Your task to perform on an android device: Check the weather Image 0: 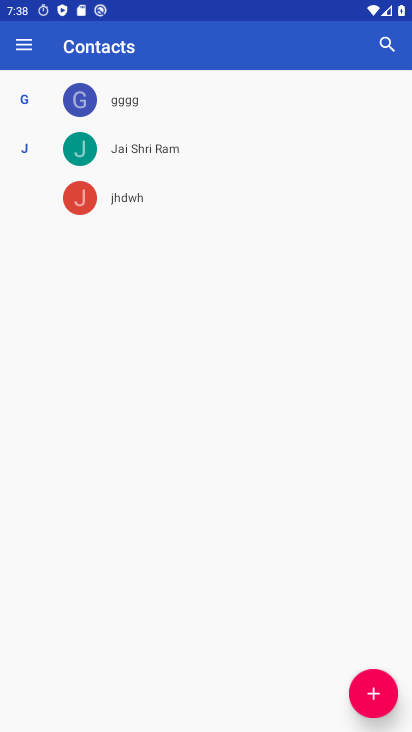
Step 0: press home button
Your task to perform on an android device: Check the weather Image 1: 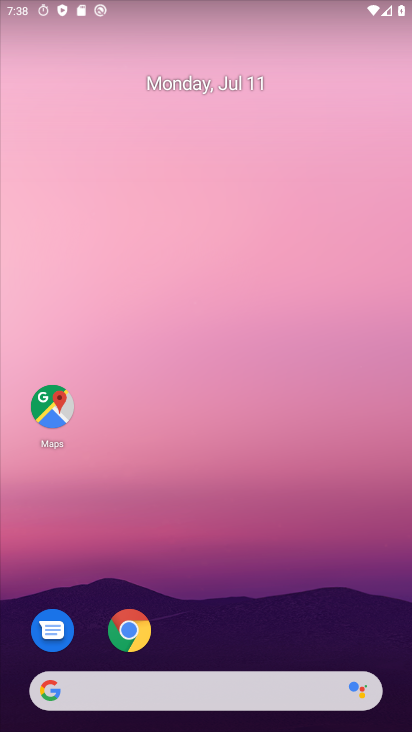
Step 1: click (186, 694)
Your task to perform on an android device: Check the weather Image 2: 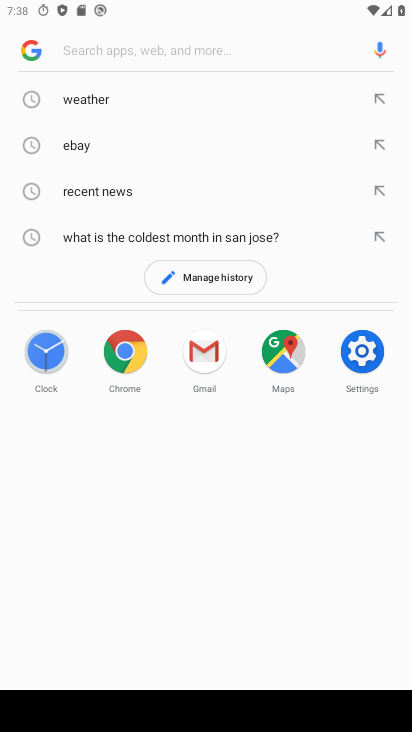
Step 2: click (84, 99)
Your task to perform on an android device: Check the weather Image 3: 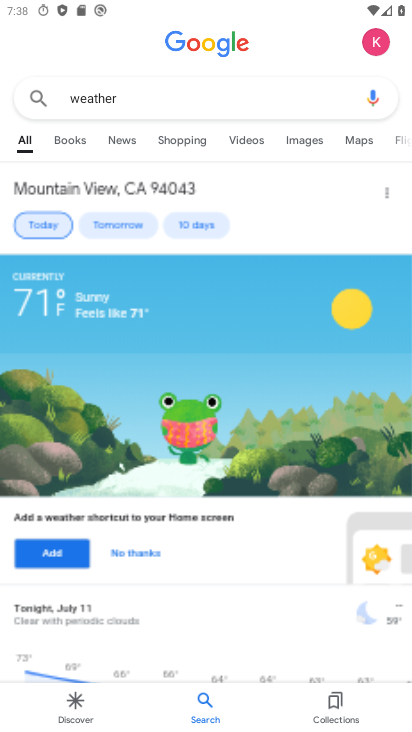
Step 3: task complete